Your task to perform on an android device: Open the phone app and click the voicemail tab. Image 0: 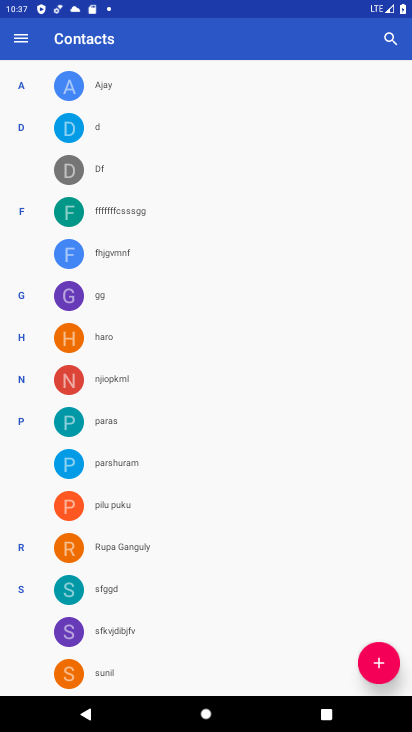
Step 0: press home button
Your task to perform on an android device: Open the phone app and click the voicemail tab. Image 1: 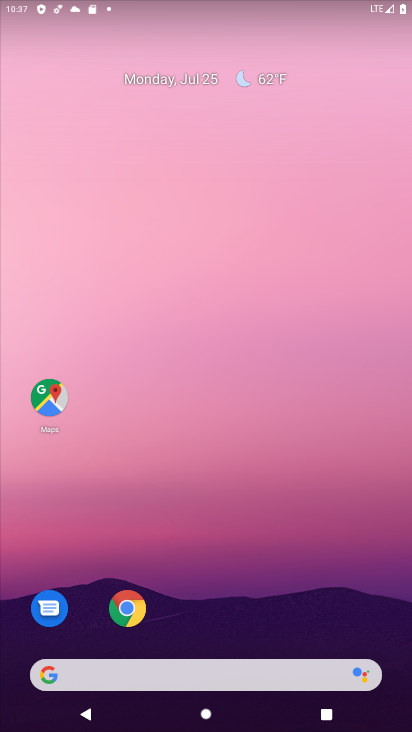
Step 1: drag from (222, 518) to (289, 0)
Your task to perform on an android device: Open the phone app and click the voicemail tab. Image 2: 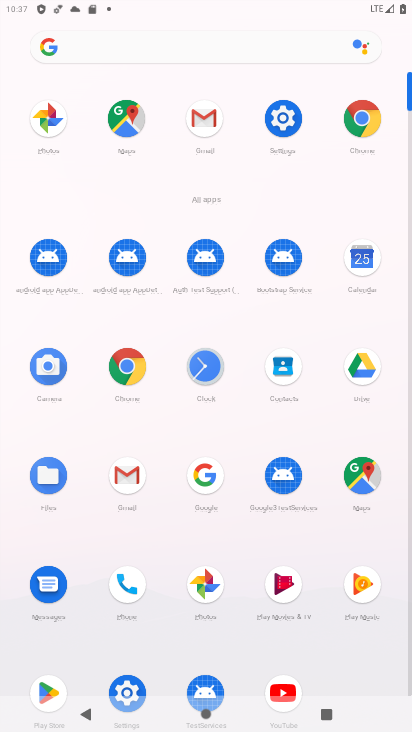
Step 2: click (136, 609)
Your task to perform on an android device: Open the phone app and click the voicemail tab. Image 3: 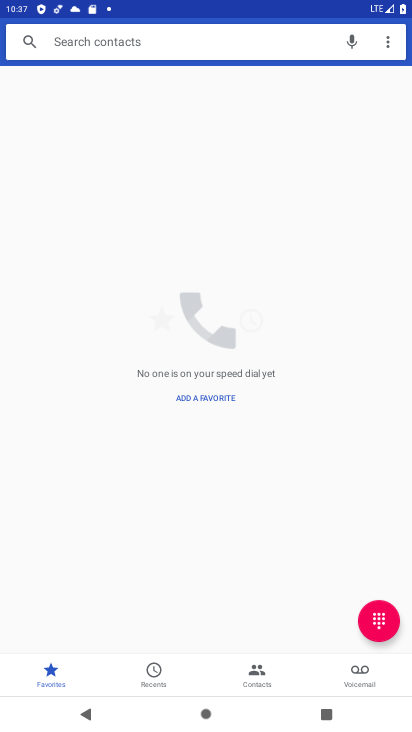
Step 3: click (361, 682)
Your task to perform on an android device: Open the phone app and click the voicemail tab. Image 4: 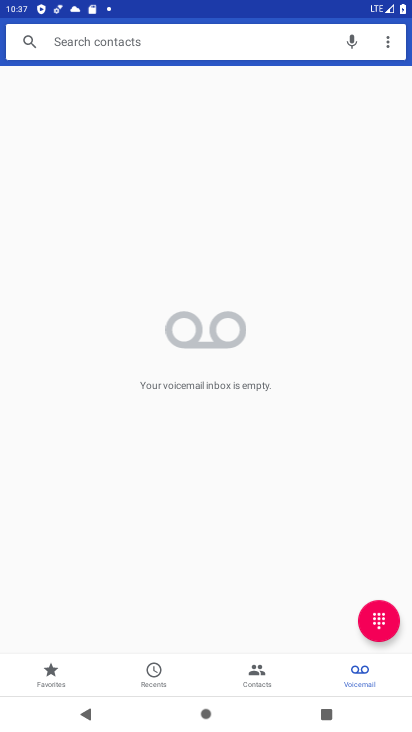
Step 4: task complete